Your task to perform on an android device: Go to notification settings Image 0: 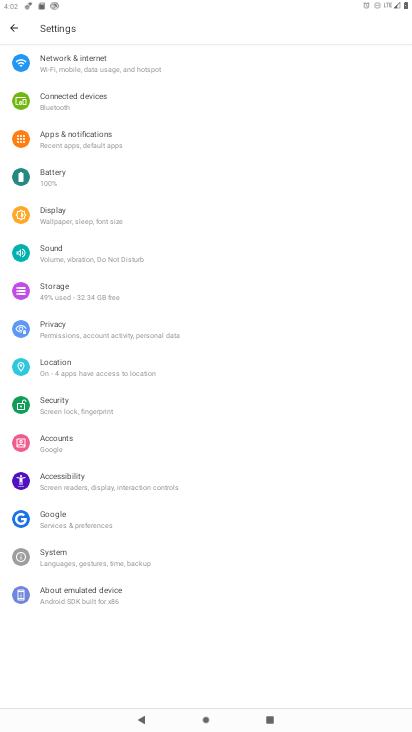
Step 0: press home button
Your task to perform on an android device: Go to notification settings Image 1: 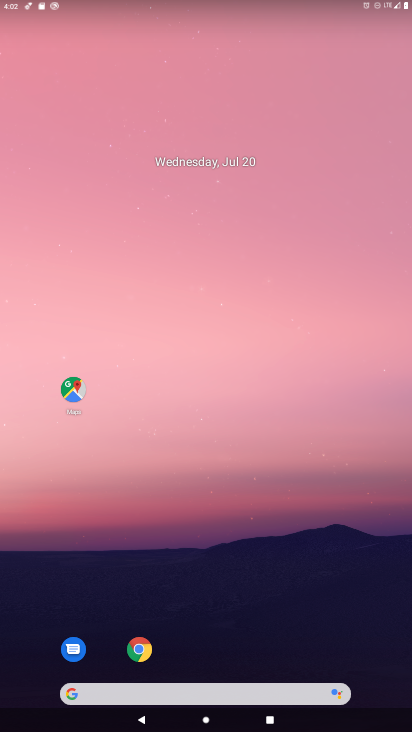
Step 1: drag from (174, 700) to (320, 165)
Your task to perform on an android device: Go to notification settings Image 2: 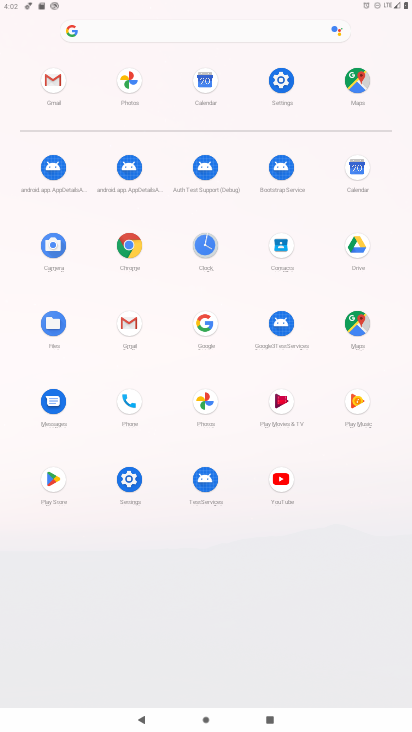
Step 2: click (281, 78)
Your task to perform on an android device: Go to notification settings Image 3: 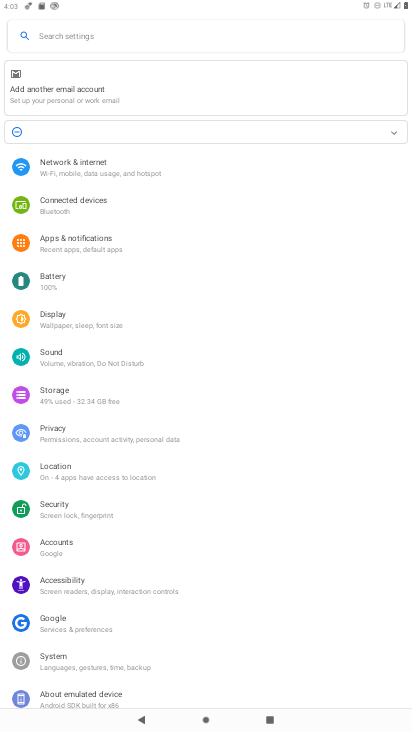
Step 3: click (80, 249)
Your task to perform on an android device: Go to notification settings Image 4: 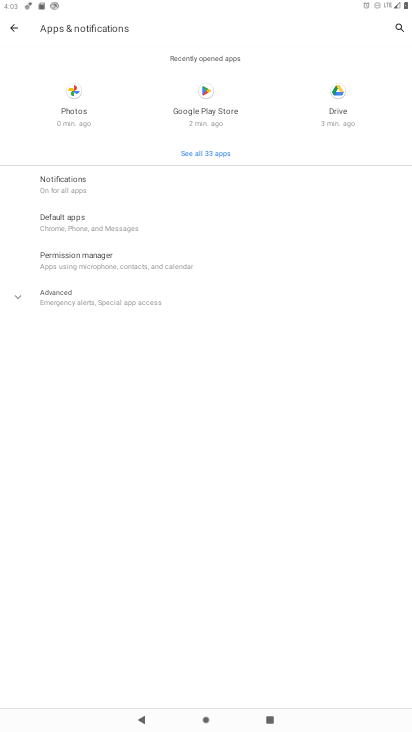
Step 4: click (73, 181)
Your task to perform on an android device: Go to notification settings Image 5: 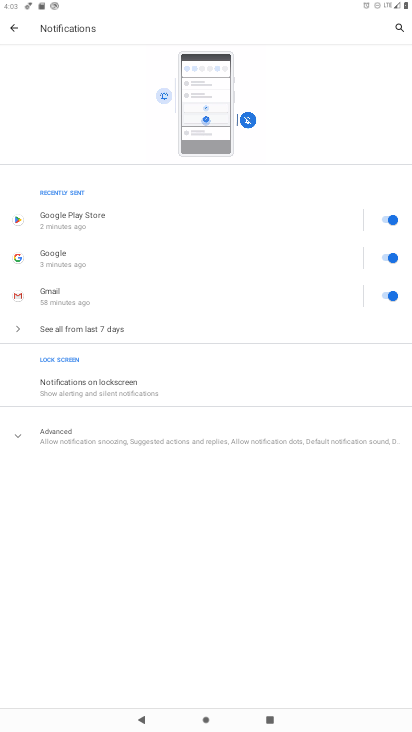
Step 5: task complete